Your task to perform on an android device: What's the weather going to be tomorrow? Image 0: 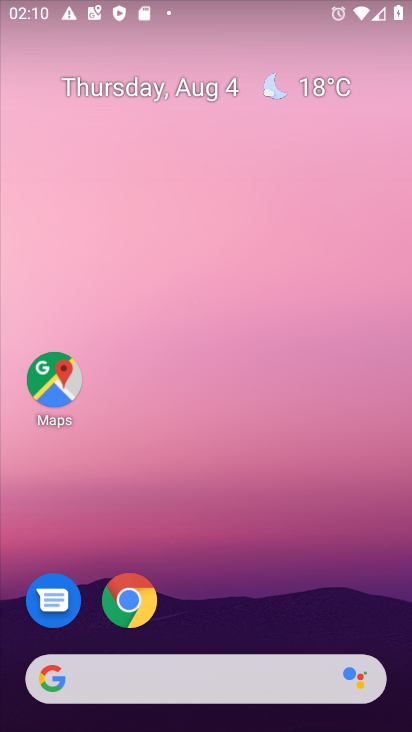
Step 0: click (117, 670)
Your task to perform on an android device: What's the weather going to be tomorrow? Image 1: 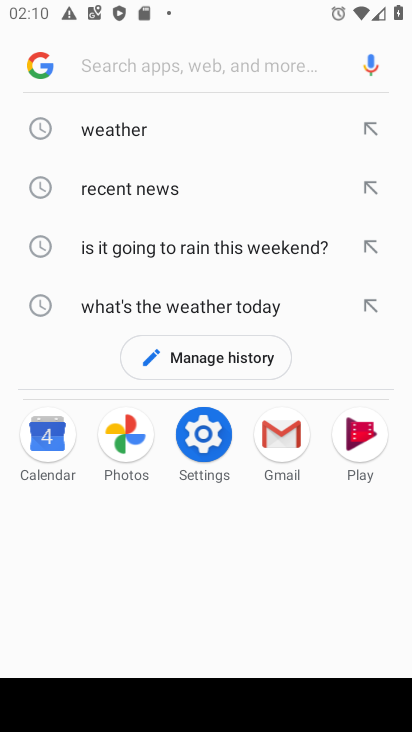
Step 1: click (106, 128)
Your task to perform on an android device: What's the weather going to be tomorrow? Image 2: 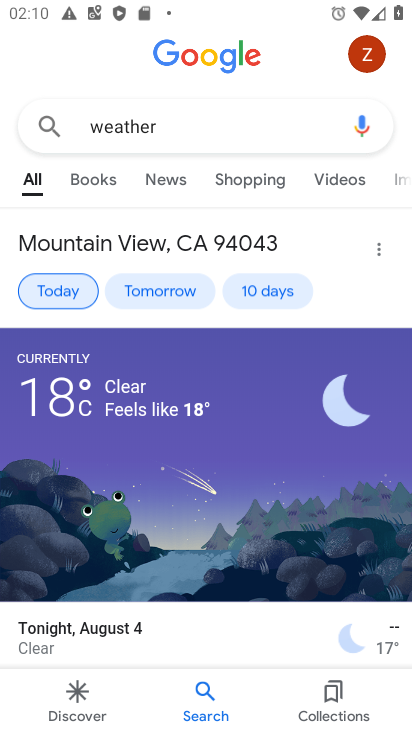
Step 2: click (167, 288)
Your task to perform on an android device: What's the weather going to be tomorrow? Image 3: 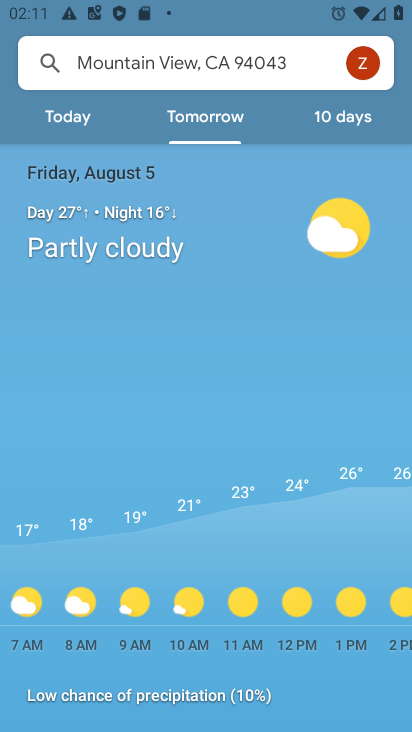
Step 3: task complete